Your task to perform on an android device: create a new album in the google photos Image 0: 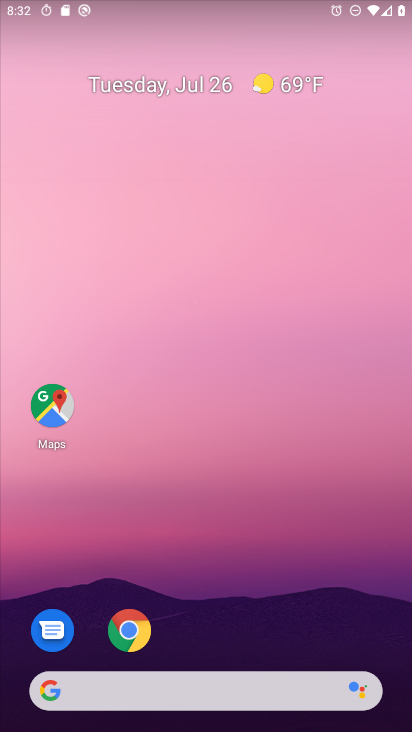
Step 0: drag from (233, 606) to (272, 226)
Your task to perform on an android device: create a new album in the google photos Image 1: 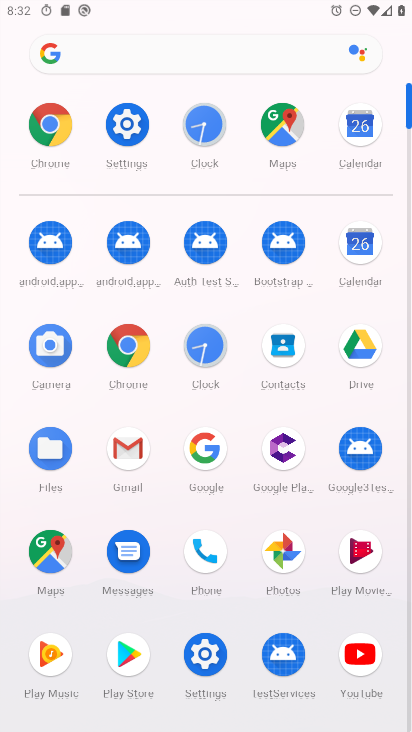
Step 1: click (297, 561)
Your task to perform on an android device: create a new album in the google photos Image 2: 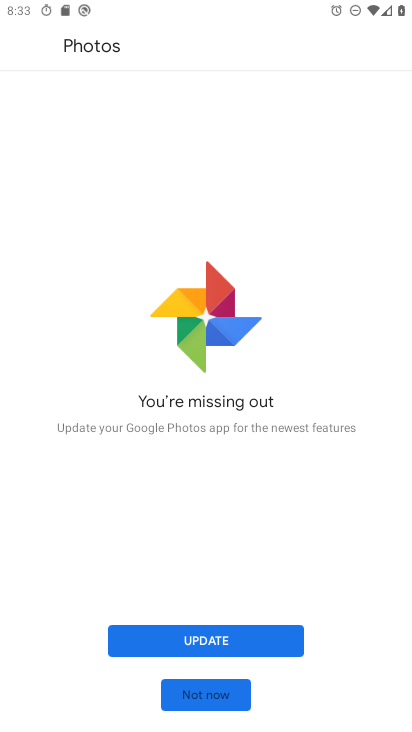
Step 2: click (272, 657)
Your task to perform on an android device: create a new album in the google photos Image 3: 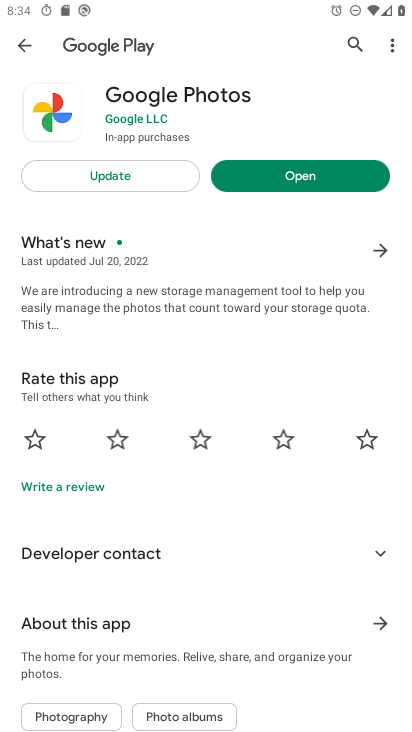
Step 3: click (129, 176)
Your task to perform on an android device: create a new album in the google photos Image 4: 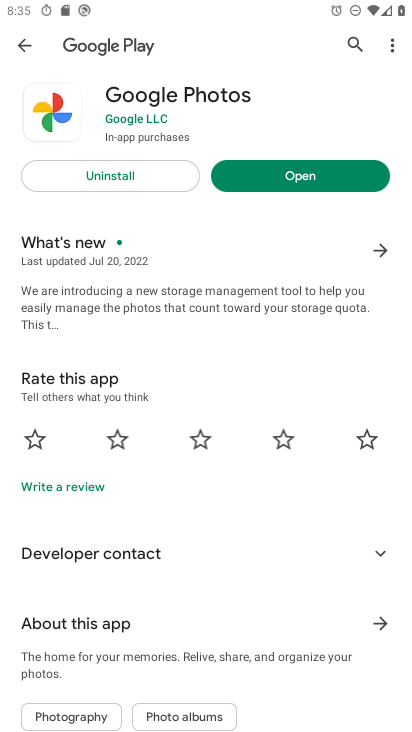
Step 4: click (326, 178)
Your task to perform on an android device: create a new album in the google photos Image 5: 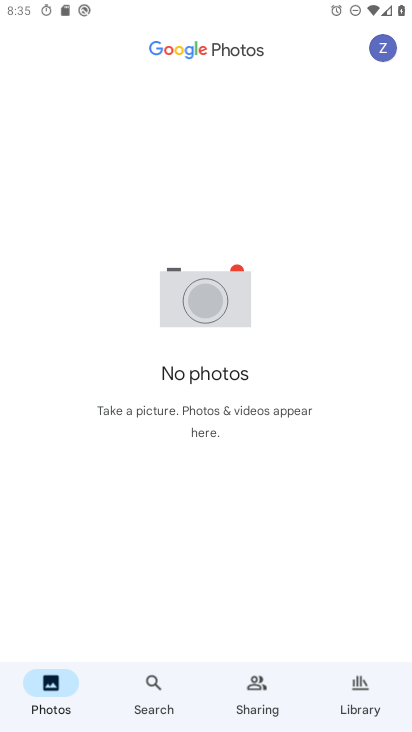
Step 5: click (155, 691)
Your task to perform on an android device: create a new album in the google photos Image 6: 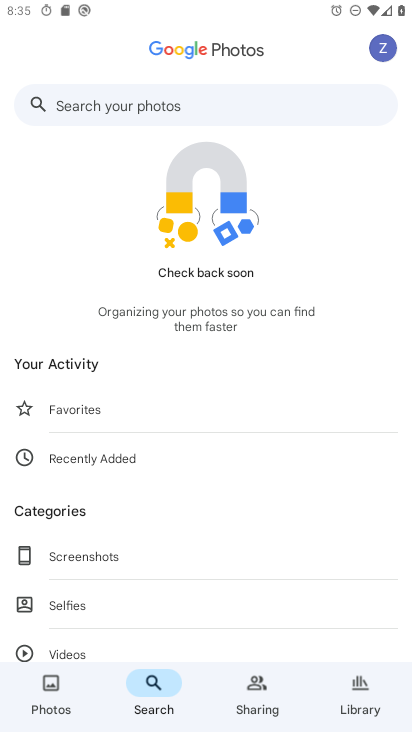
Step 6: click (370, 699)
Your task to perform on an android device: create a new album in the google photos Image 7: 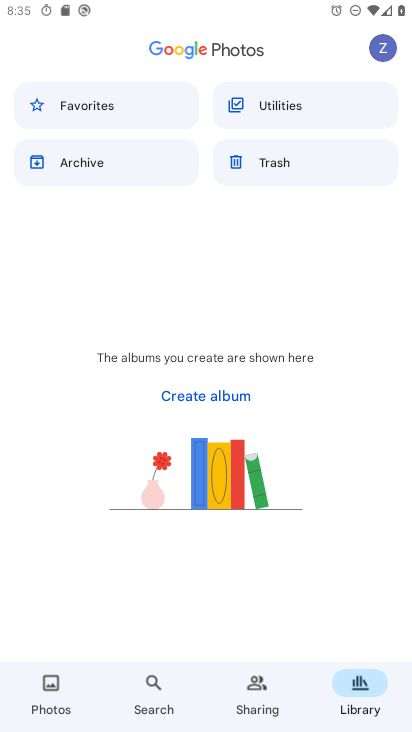
Step 7: click (244, 392)
Your task to perform on an android device: create a new album in the google photos Image 8: 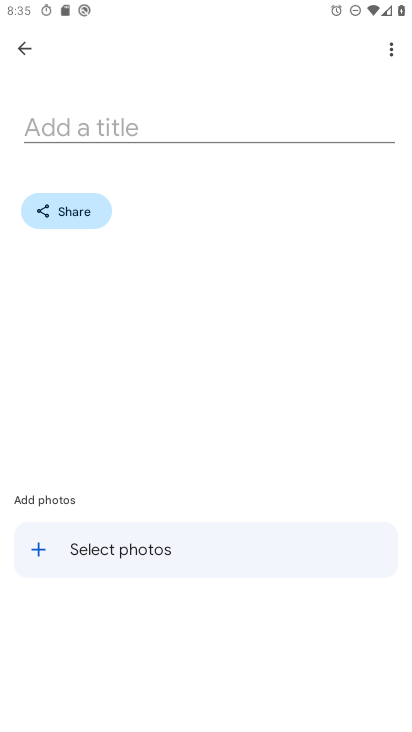
Step 8: click (167, 126)
Your task to perform on an android device: create a new album in the google photos Image 9: 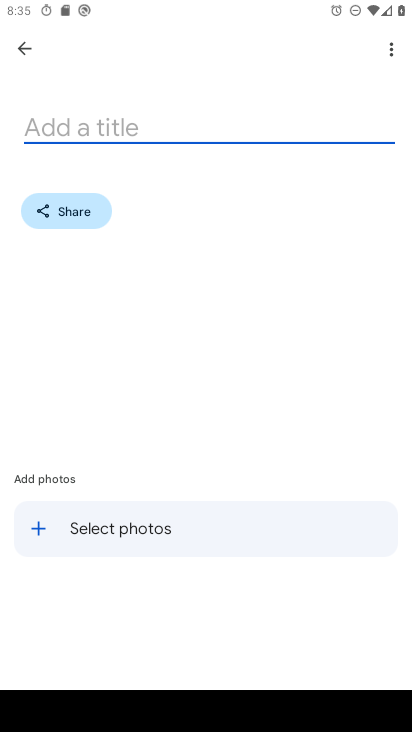
Step 9: type "ffytdygvj"
Your task to perform on an android device: create a new album in the google photos Image 10: 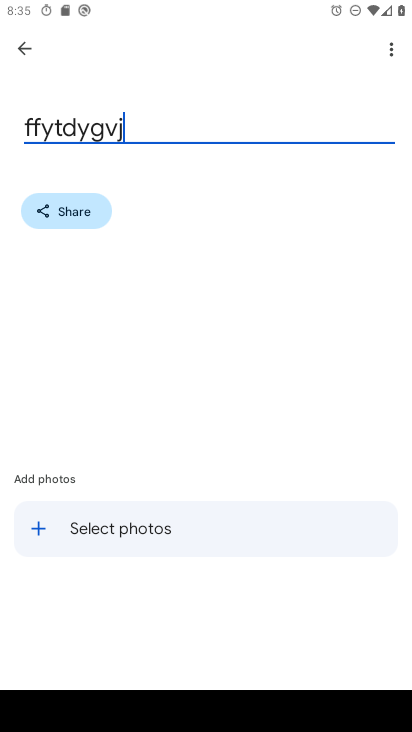
Step 10: type ""
Your task to perform on an android device: create a new album in the google photos Image 11: 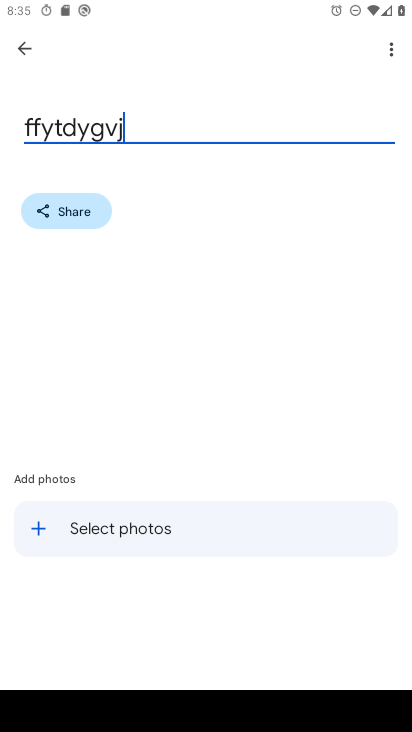
Step 11: click (387, 55)
Your task to perform on an android device: create a new album in the google photos Image 12: 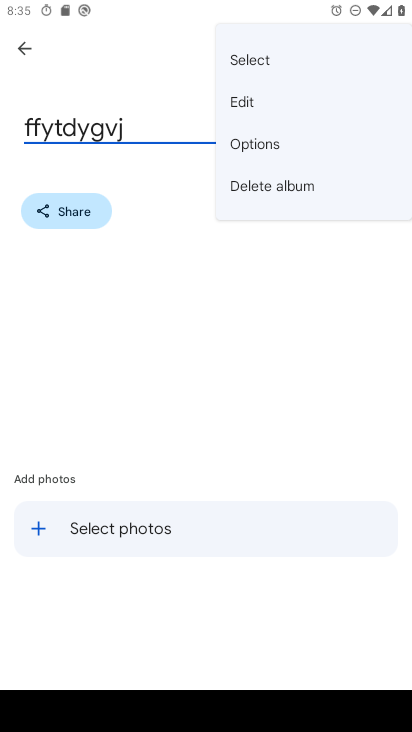
Step 12: task complete